Your task to perform on an android device: Open the phone app and click the voicemail tab. Image 0: 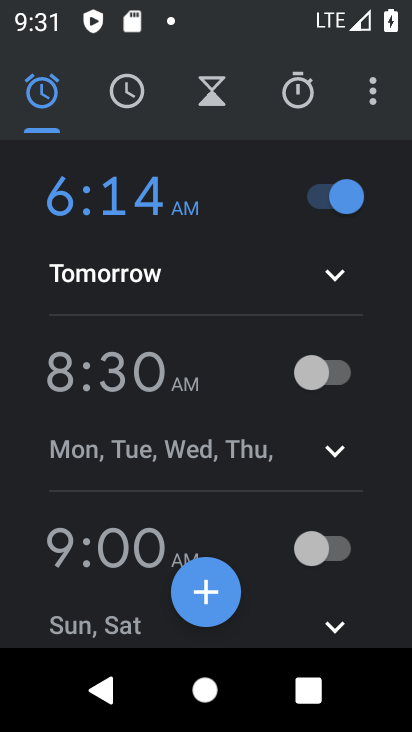
Step 0: press home button
Your task to perform on an android device: Open the phone app and click the voicemail tab. Image 1: 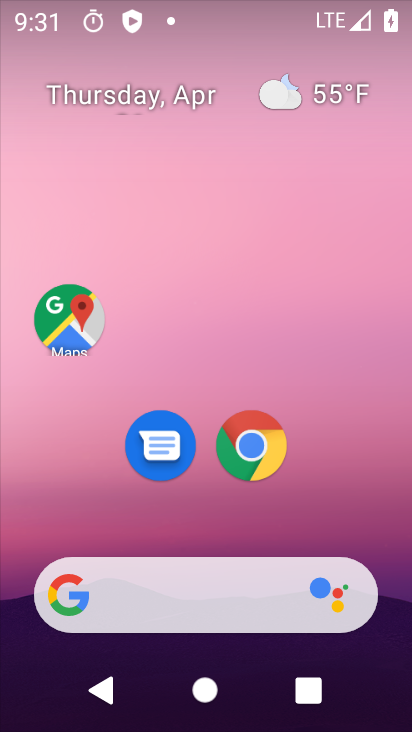
Step 1: drag from (354, 502) to (324, 17)
Your task to perform on an android device: Open the phone app and click the voicemail tab. Image 2: 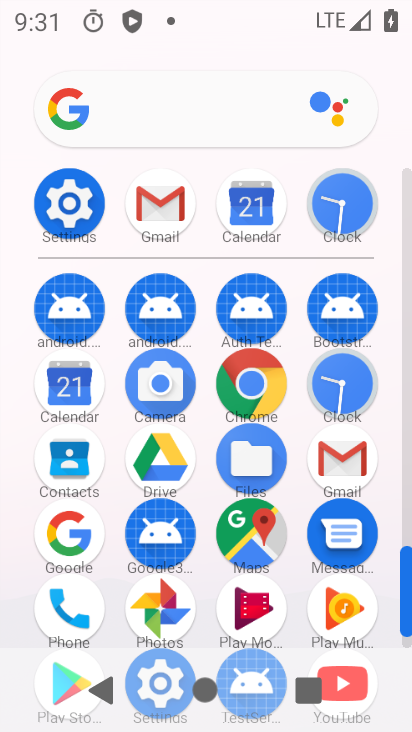
Step 2: click (65, 598)
Your task to perform on an android device: Open the phone app and click the voicemail tab. Image 3: 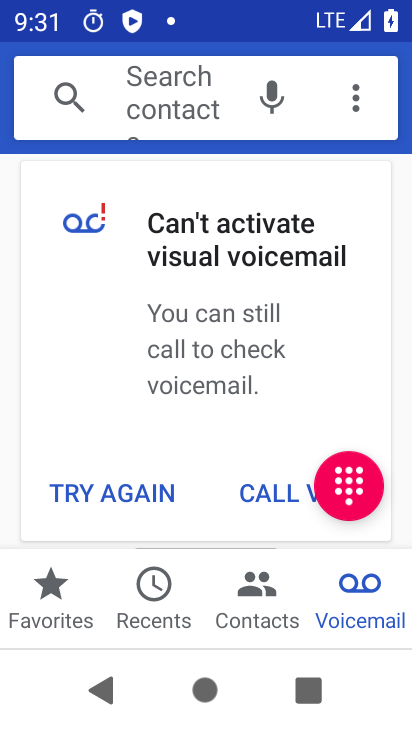
Step 3: click (345, 619)
Your task to perform on an android device: Open the phone app and click the voicemail tab. Image 4: 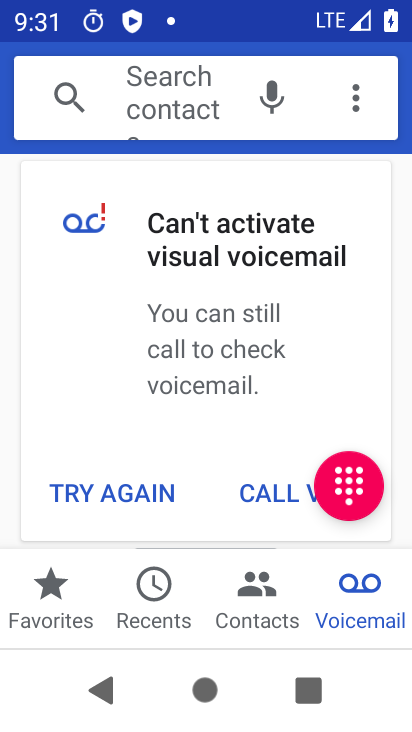
Step 4: task complete